Your task to perform on an android device: When is my next appointment? Image 0: 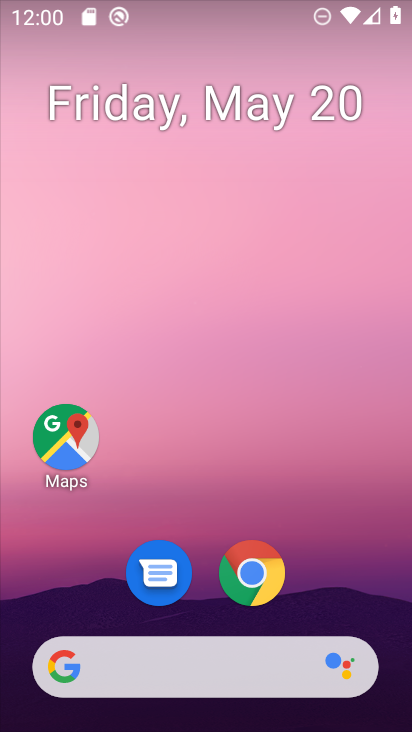
Step 0: drag from (207, 720) to (204, 159)
Your task to perform on an android device: When is my next appointment? Image 1: 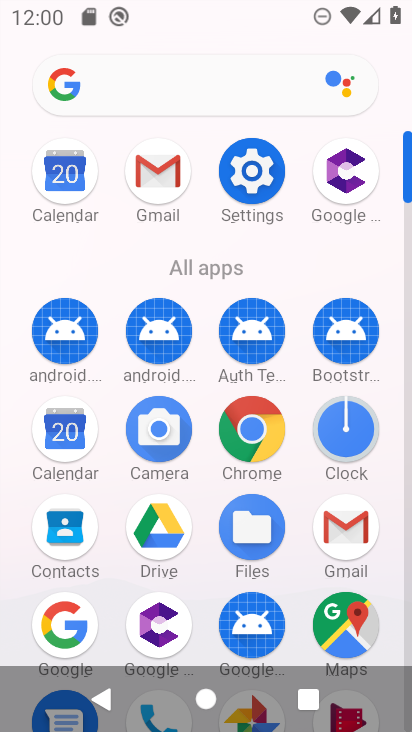
Step 1: click (72, 438)
Your task to perform on an android device: When is my next appointment? Image 2: 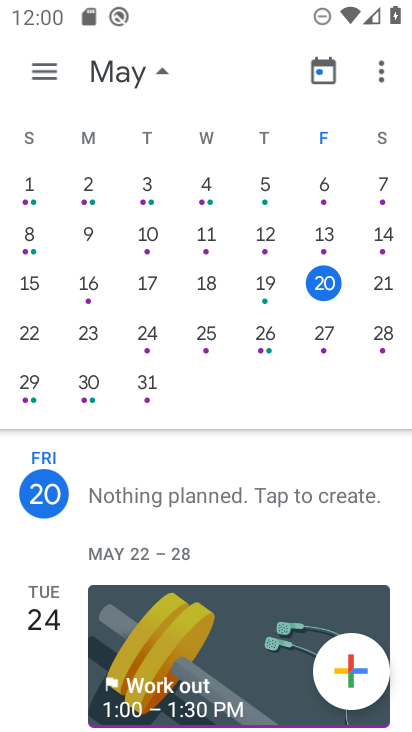
Step 2: click (386, 277)
Your task to perform on an android device: When is my next appointment? Image 3: 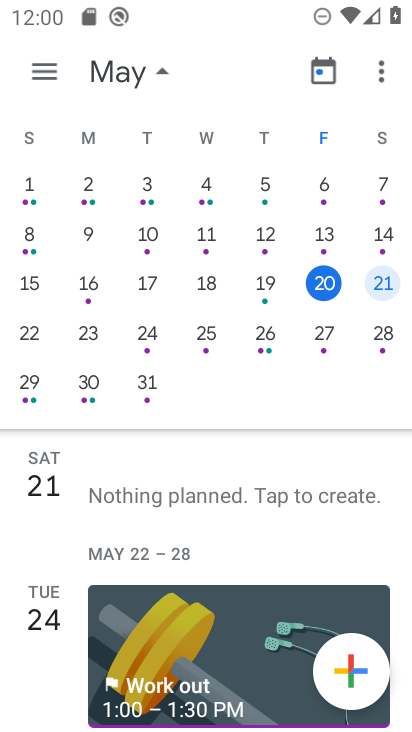
Step 3: click (386, 277)
Your task to perform on an android device: When is my next appointment? Image 4: 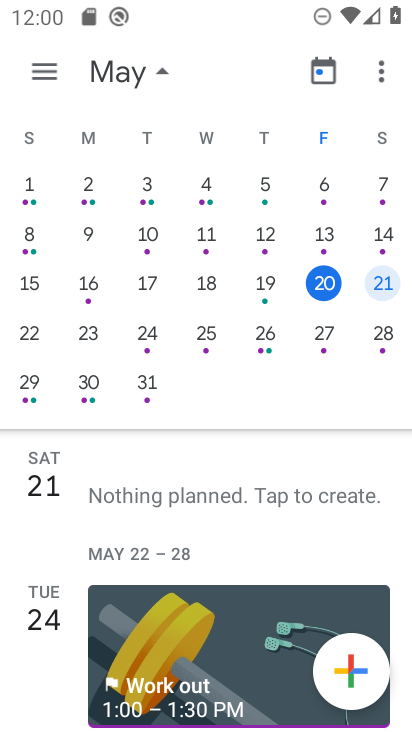
Step 4: click (386, 277)
Your task to perform on an android device: When is my next appointment? Image 5: 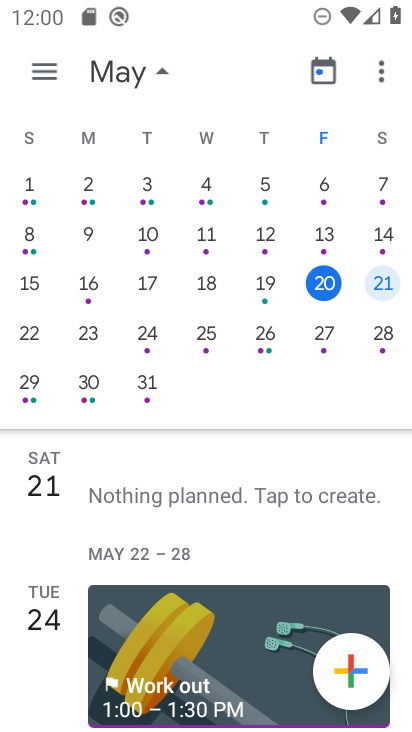
Step 5: click (386, 277)
Your task to perform on an android device: When is my next appointment? Image 6: 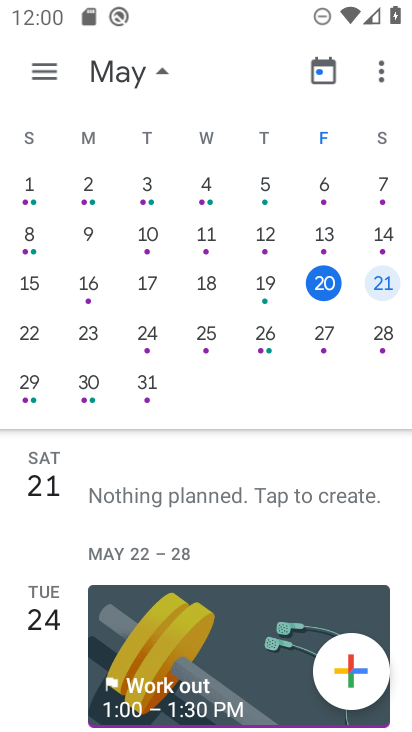
Step 6: click (385, 278)
Your task to perform on an android device: When is my next appointment? Image 7: 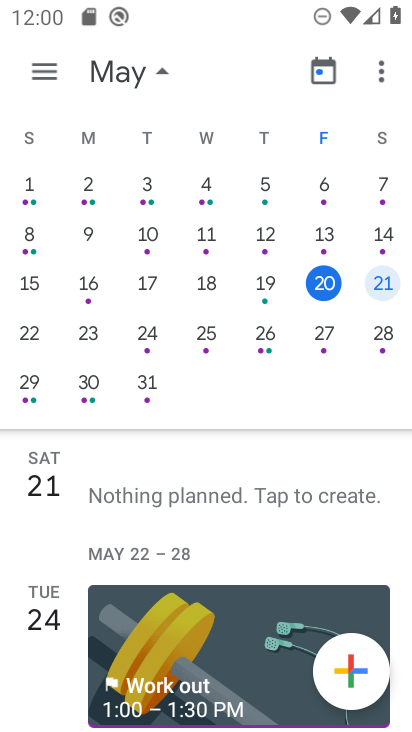
Step 7: task complete